Your task to perform on an android device: Open Amazon Image 0: 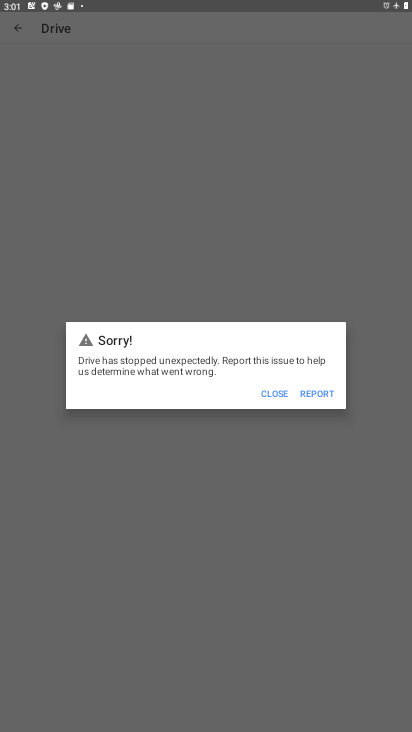
Step 0: press home button
Your task to perform on an android device: Open Amazon Image 1: 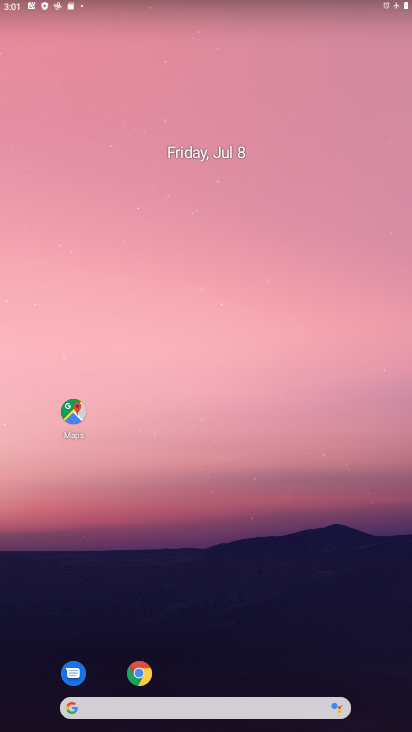
Step 1: drag from (373, 717) to (385, 159)
Your task to perform on an android device: Open Amazon Image 2: 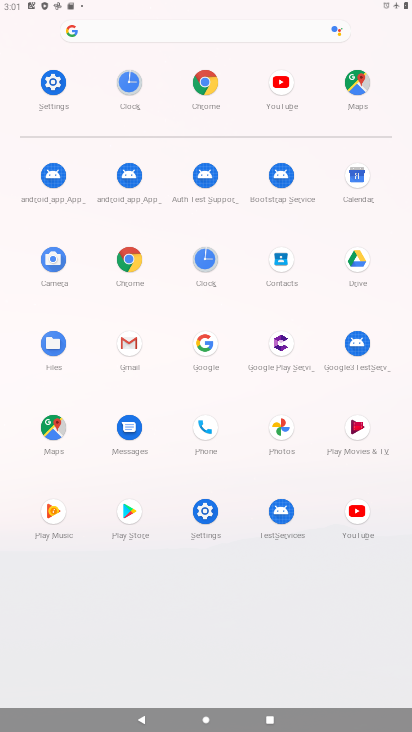
Step 2: click (209, 90)
Your task to perform on an android device: Open Amazon Image 3: 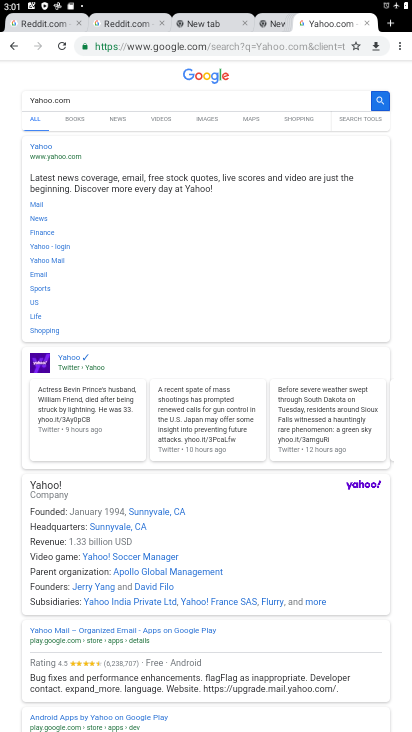
Step 3: click (224, 48)
Your task to perform on an android device: Open Amazon Image 4: 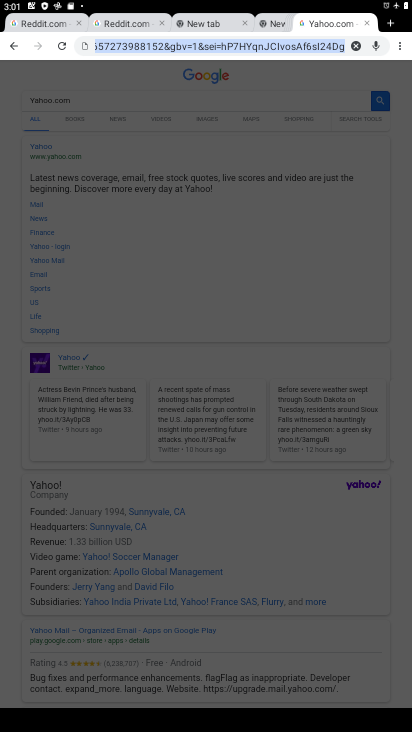
Step 4: click (358, 46)
Your task to perform on an android device: Open Amazon Image 5: 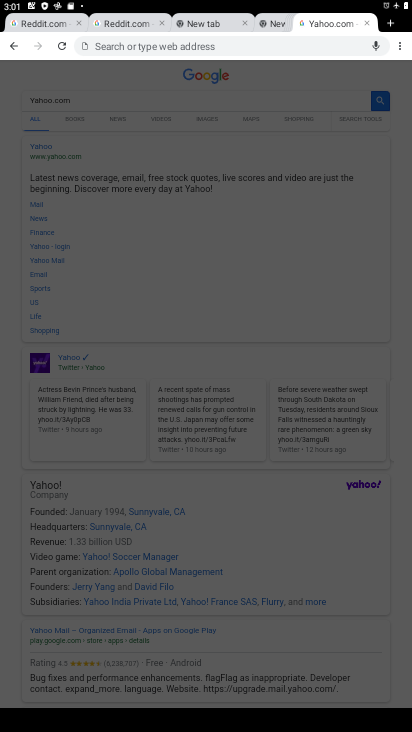
Step 5: type "Amazon"
Your task to perform on an android device: Open Amazon Image 6: 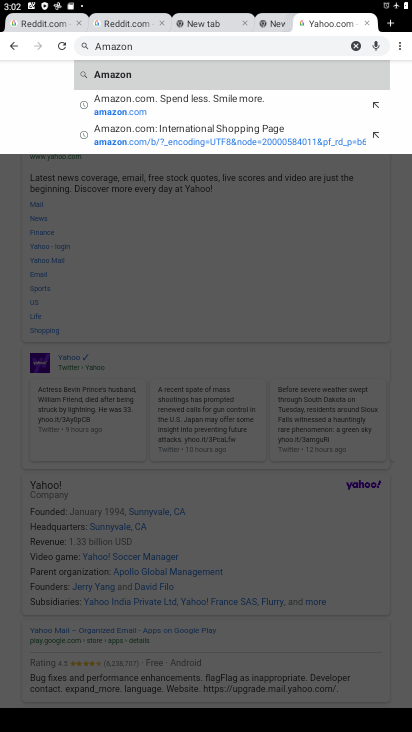
Step 6: click (134, 103)
Your task to perform on an android device: Open Amazon Image 7: 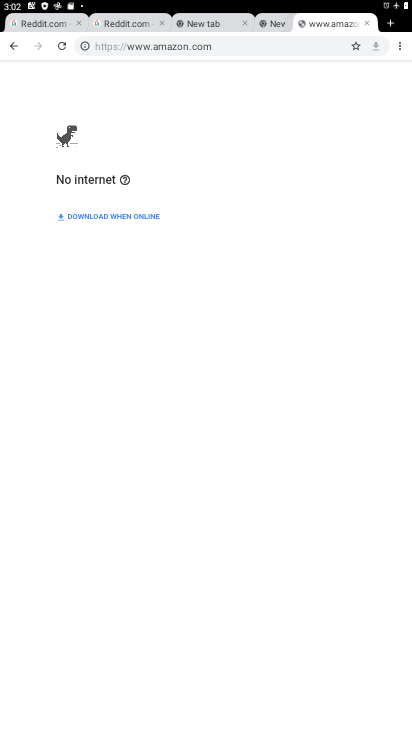
Step 7: task complete